Your task to perform on an android device: turn on notifications settings in the gmail app Image 0: 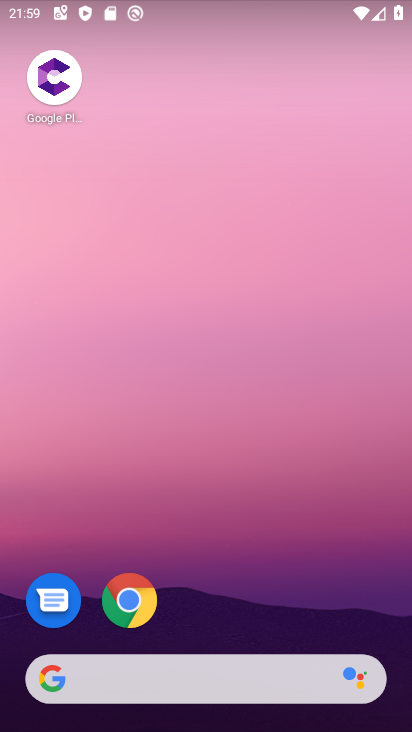
Step 0: drag from (297, 523) to (322, 188)
Your task to perform on an android device: turn on notifications settings in the gmail app Image 1: 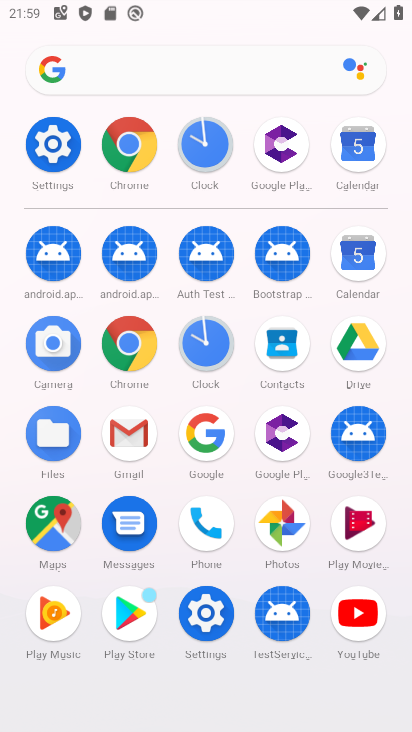
Step 1: click (123, 437)
Your task to perform on an android device: turn on notifications settings in the gmail app Image 2: 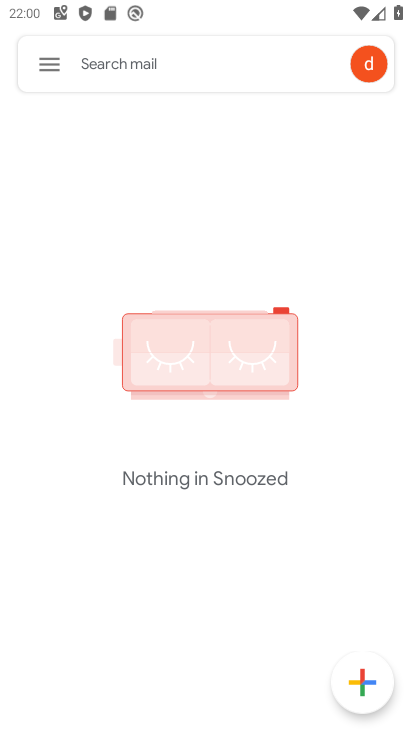
Step 2: click (47, 60)
Your task to perform on an android device: turn on notifications settings in the gmail app Image 3: 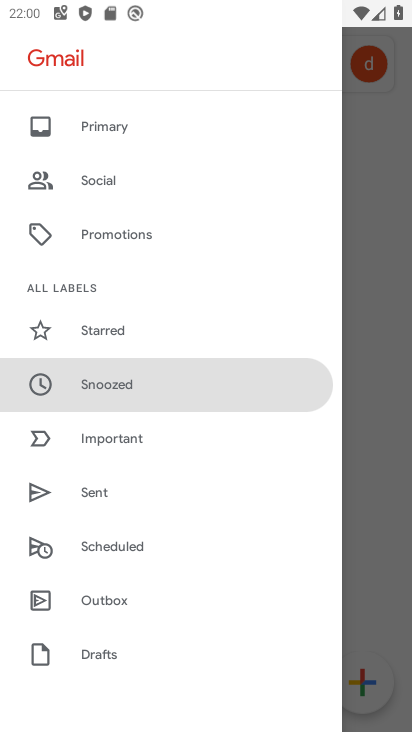
Step 3: drag from (134, 590) to (204, 223)
Your task to perform on an android device: turn on notifications settings in the gmail app Image 4: 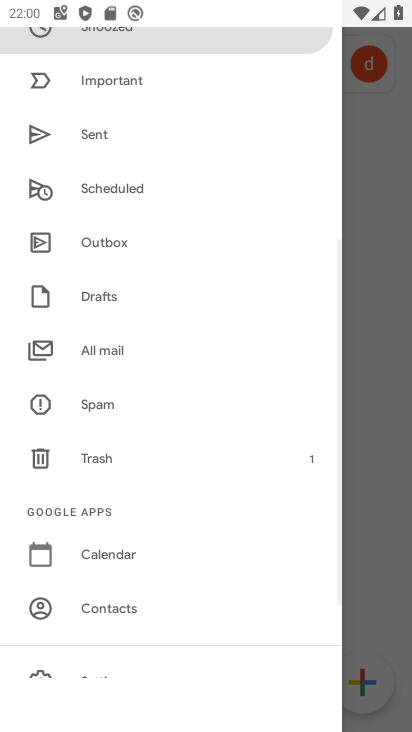
Step 4: drag from (140, 594) to (196, 276)
Your task to perform on an android device: turn on notifications settings in the gmail app Image 5: 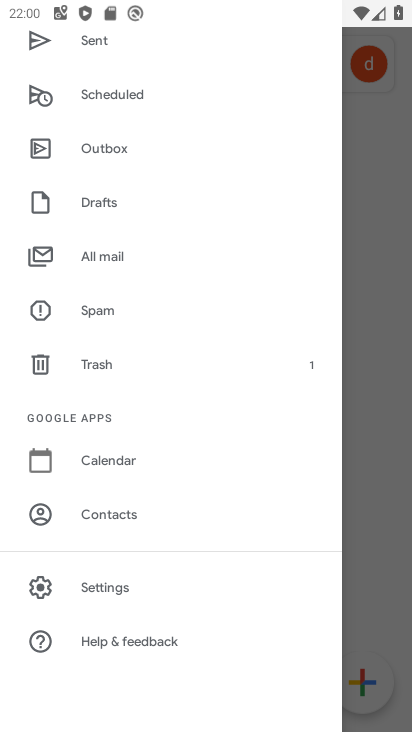
Step 5: click (113, 584)
Your task to perform on an android device: turn on notifications settings in the gmail app Image 6: 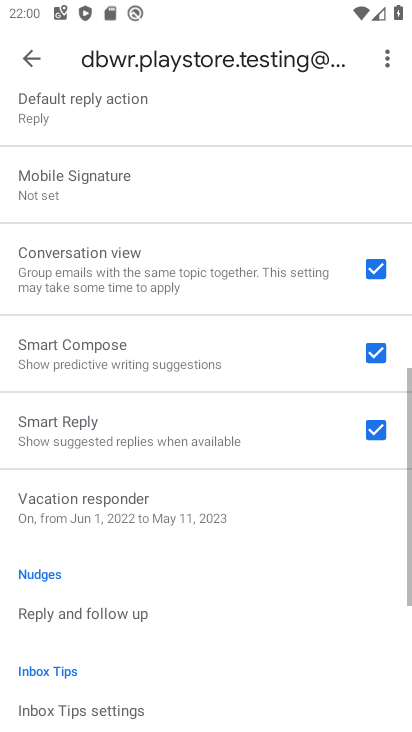
Step 6: drag from (214, 129) to (185, 664)
Your task to perform on an android device: turn on notifications settings in the gmail app Image 7: 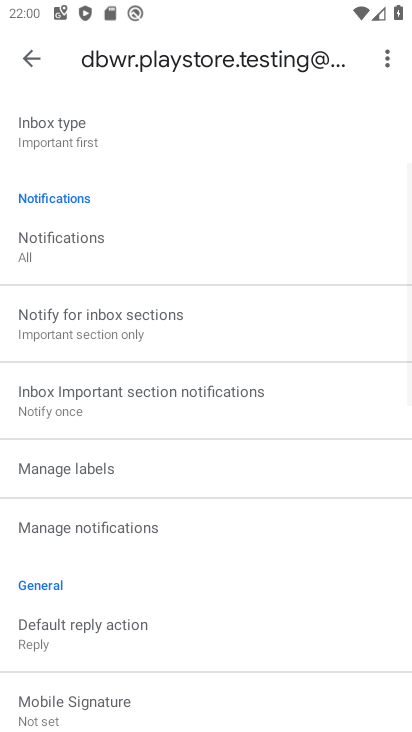
Step 7: drag from (189, 247) to (203, 587)
Your task to perform on an android device: turn on notifications settings in the gmail app Image 8: 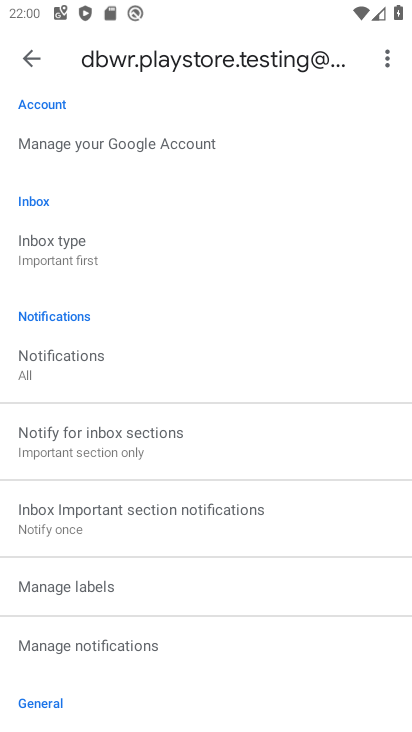
Step 8: click (122, 639)
Your task to perform on an android device: turn on notifications settings in the gmail app Image 9: 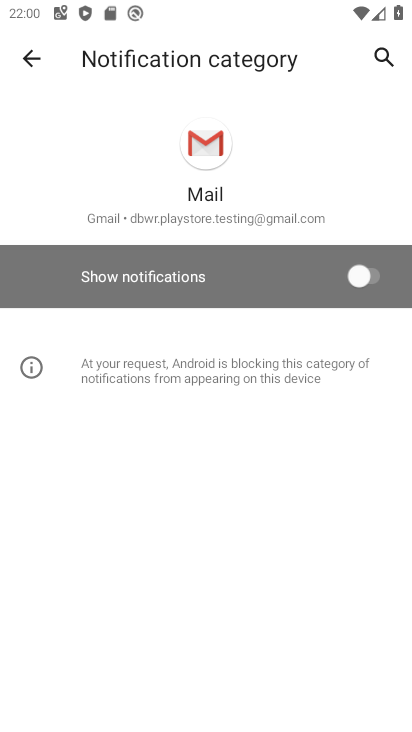
Step 9: click (354, 271)
Your task to perform on an android device: turn on notifications settings in the gmail app Image 10: 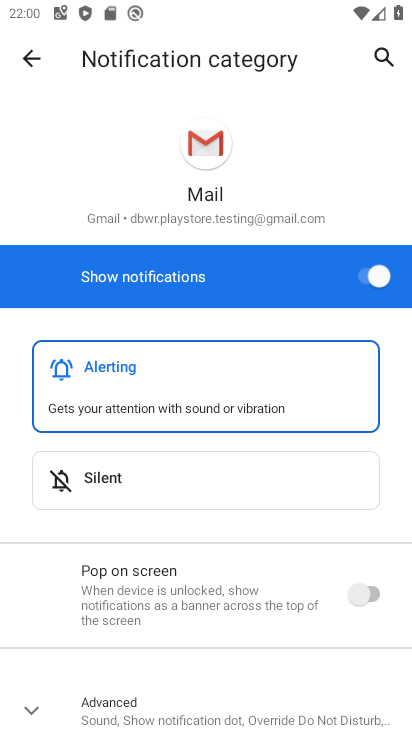
Step 10: task complete